Your task to perform on an android device: Go to location settings Image 0: 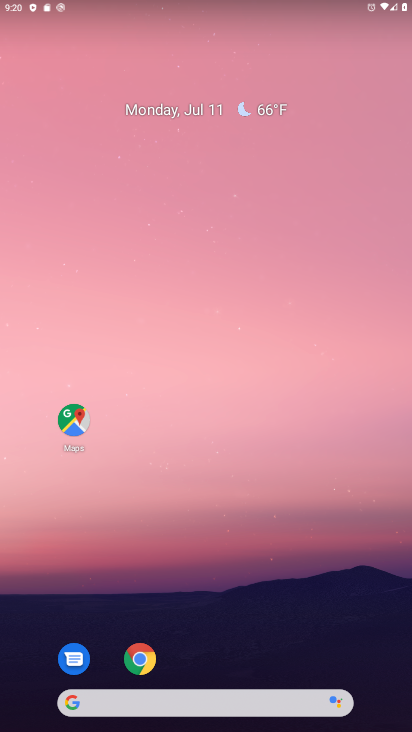
Step 0: drag from (352, 633) to (365, 122)
Your task to perform on an android device: Go to location settings Image 1: 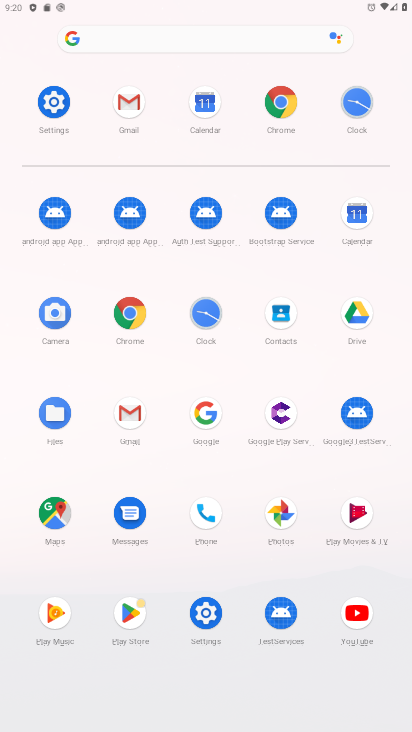
Step 1: click (201, 616)
Your task to perform on an android device: Go to location settings Image 2: 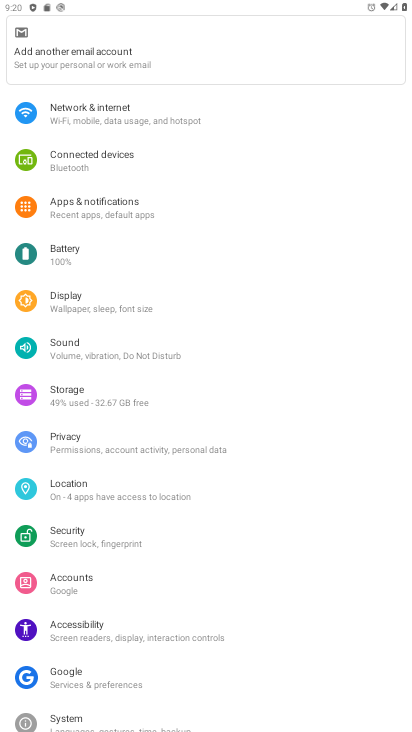
Step 2: drag from (343, 543) to (342, 333)
Your task to perform on an android device: Go to location settings Image 3: 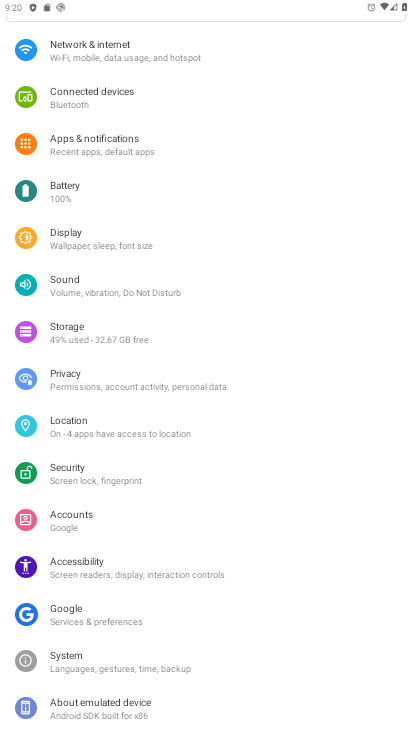
Step 3: click (176, 426)
Your task to perform on an android device: Go to location settings Image 4: 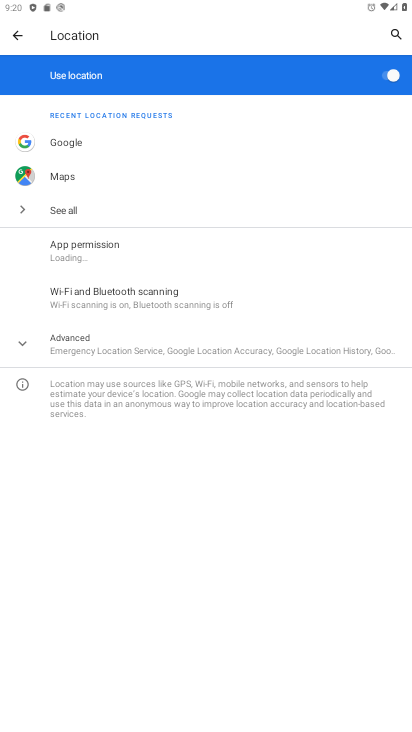
Step 4: click (291, 344)
Your task to perform on an android device: Go to location settings Image 5: 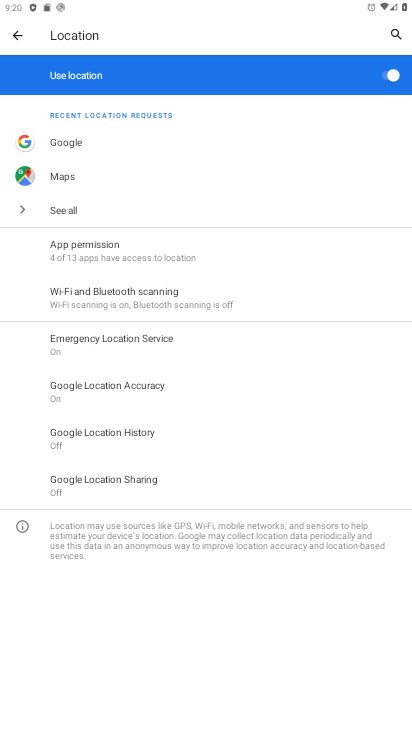
Step 5: task complete